Your task to perform on an android device: add a contact Image 0: 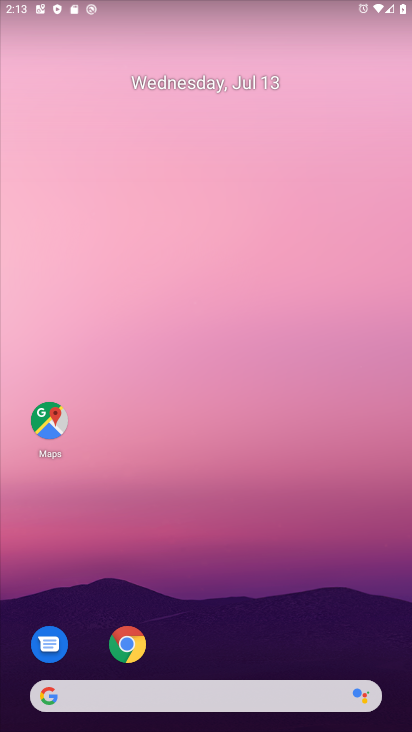
Step 0: drag from (187, 663) to (159, 0)
Your task to perform on an android device: add a contact Image 1: 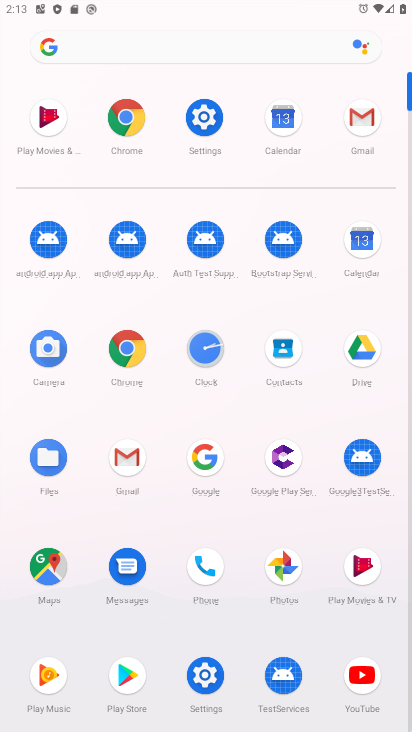
Step 1: click (197, 551)
Your task to perform on an android device: add a contact Image 2: 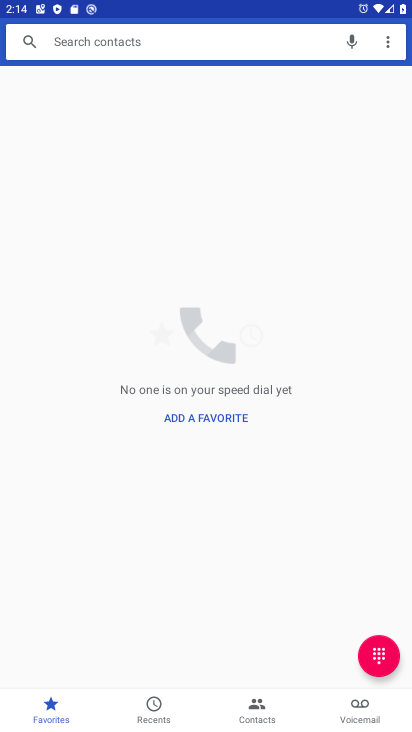
Step 2: click (263, 705)
Your task to perform on an android device: add a contact Image 3: 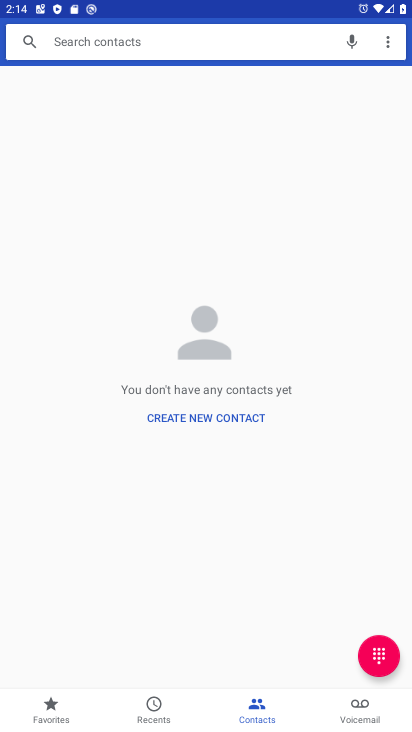
Step 3: click (191, 414)
Your task to perform on an android device: add a contact Image 4: 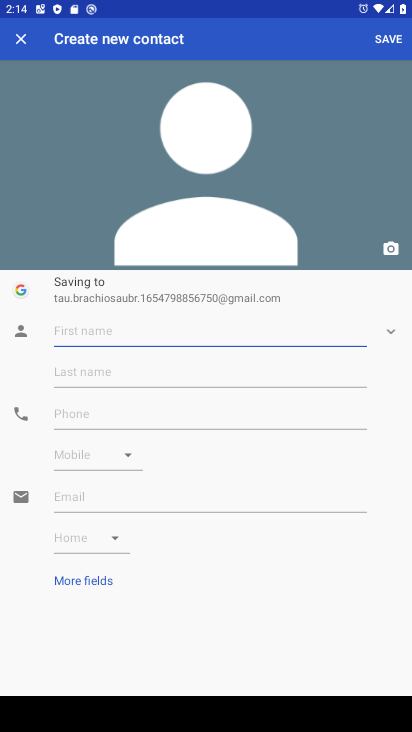
Step 4: type "gg"
Your task to perform on an android device: add a contact Image 5: 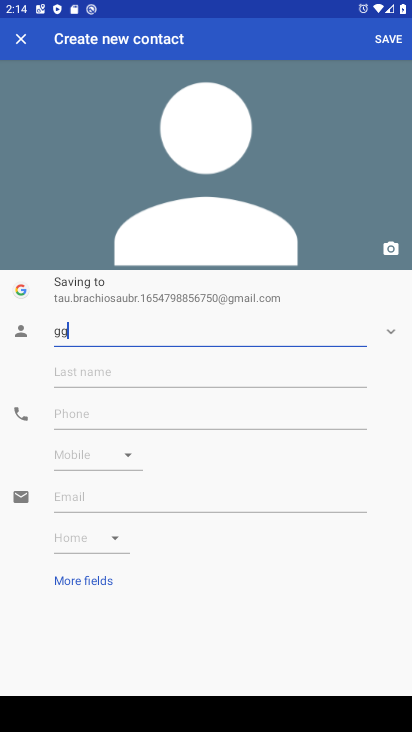
Step 5: type ""
Your task to perform on an android device: add a contact Image 6: 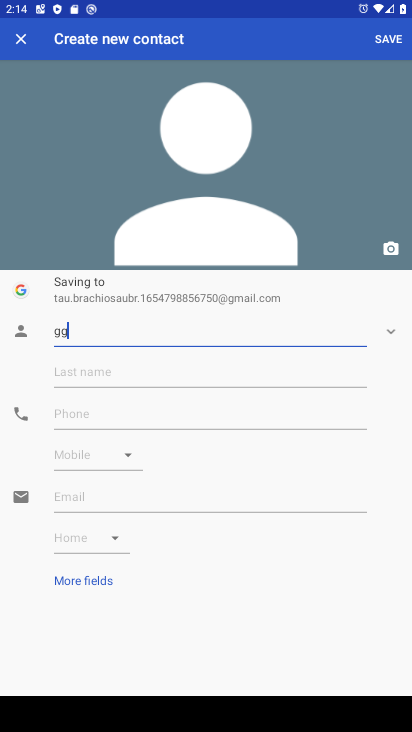
Step 6: click (194, 427)
Your task to perform on an android device: add a contact Image 7: 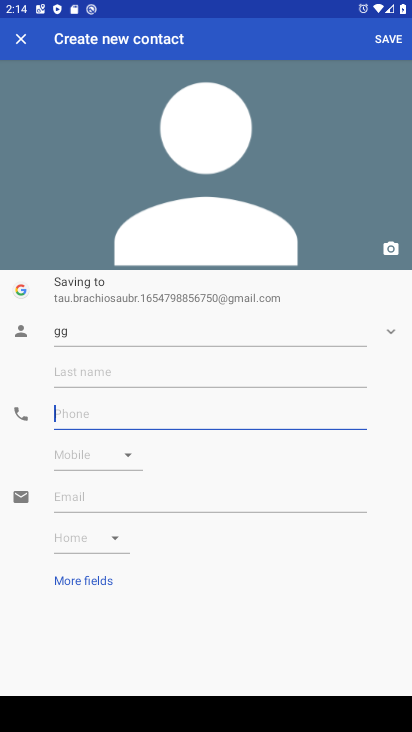
Step 7: type "666"
Your task to perform on an android device: add a contact Image 8: 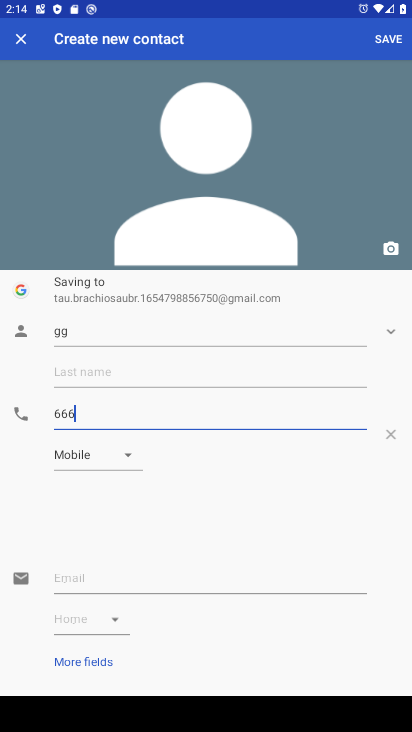
Step 8: type ""
Your task to perform on an android device: add a contact Image 9: 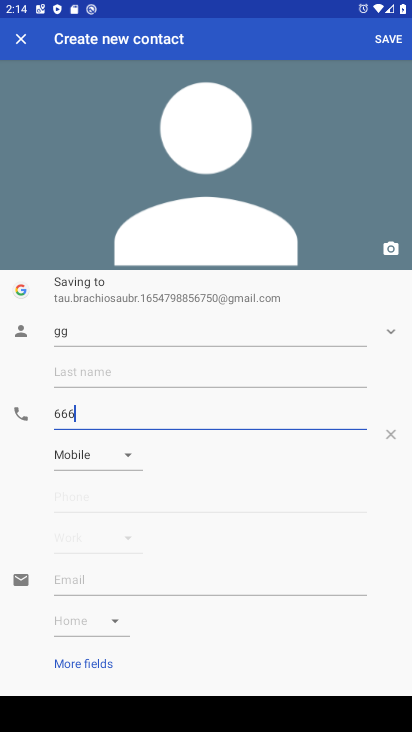
Step 9: click (400, 43)
Your task to perform on an android device: add a contact Image 10: 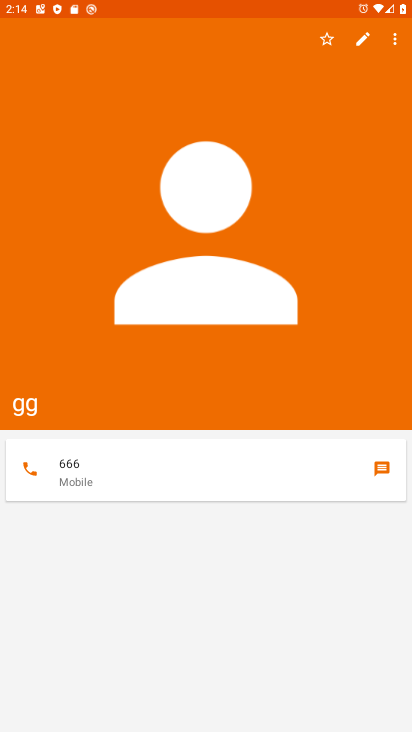
Step 10: task complete